Your task to perform on an android device: Open maps Image 0: 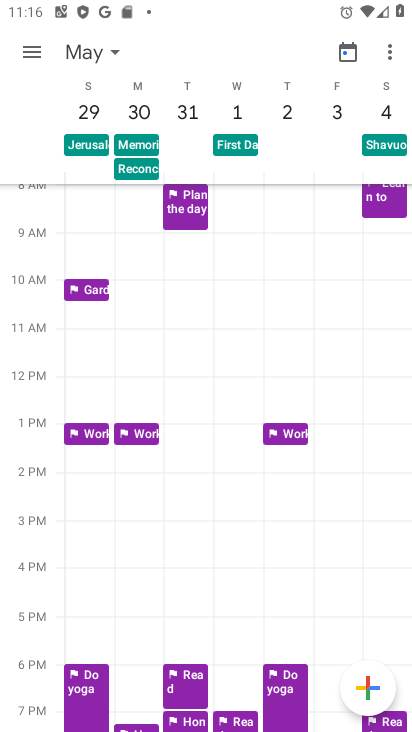
Step 0: press home button
Your task to perform on an android device: Open maps Image 1: 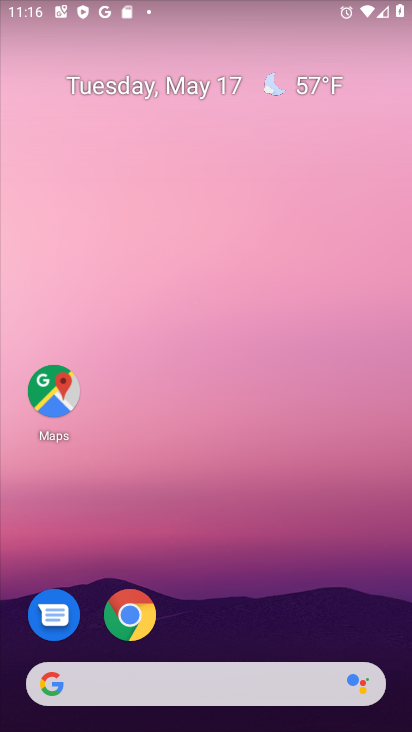
Step 1: click (61, 385)
Your task to perform on an android device: Open maps Image 2: 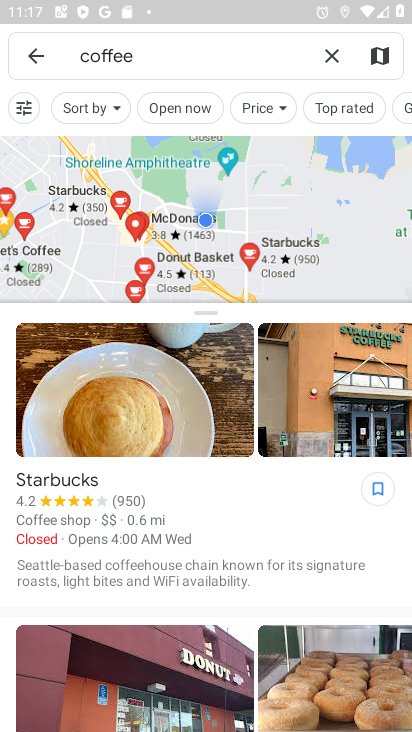
Step 2: task complete